Your task to perform on an android device: toggle priority inbox in the gmail app Image 0: 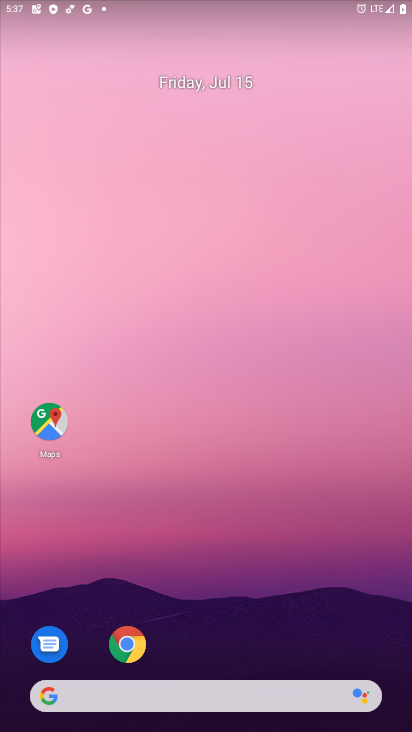
Step 0: drag from (192, 665) to (246, 158)
Your task to perform on an android device: toggle priority inbox in the gmail app Image 1: 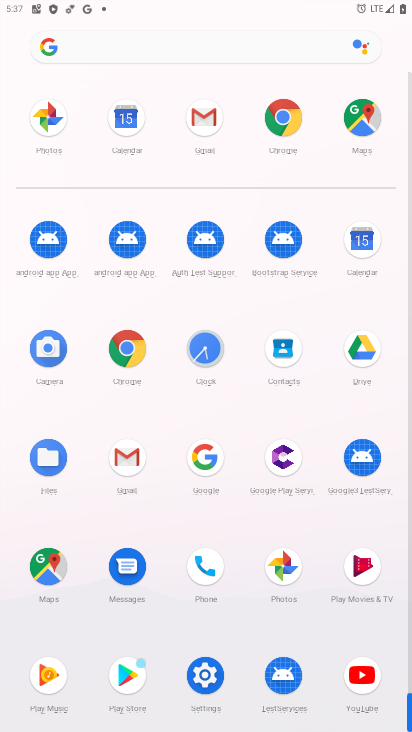
Step 1: click (115, 452)
Your task to perform on an android device: toggle priority inbox in the gmail app Image 2: 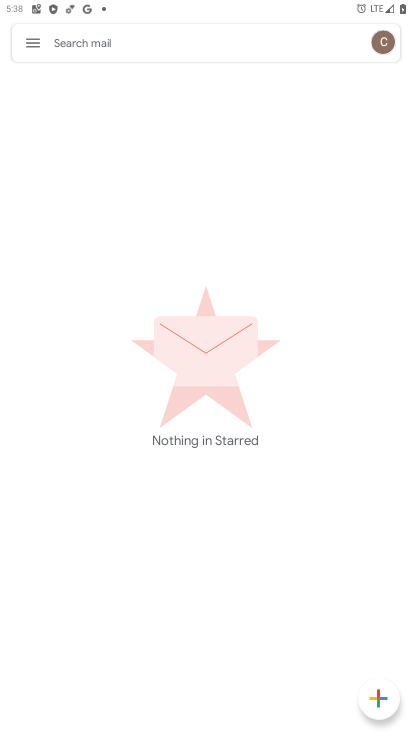
Step 2: click (26, 44)
Your task to perform on an android device: toggle priority inbox in the gmail app Image 3: 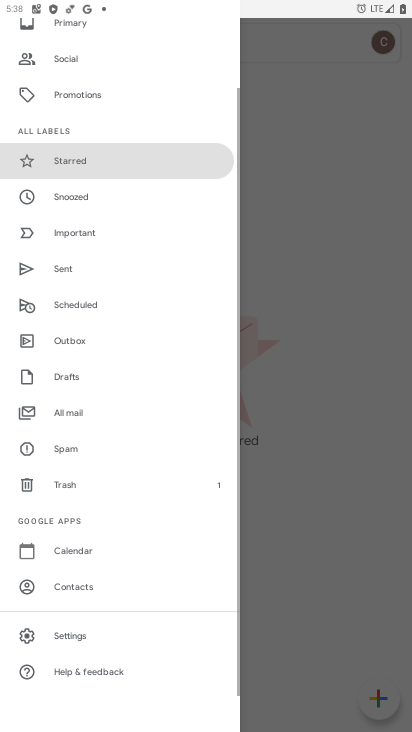
Step 3: click (76, 637)
Your task to perform on an android device: toggle priority inbox in the gmail app Image 4: 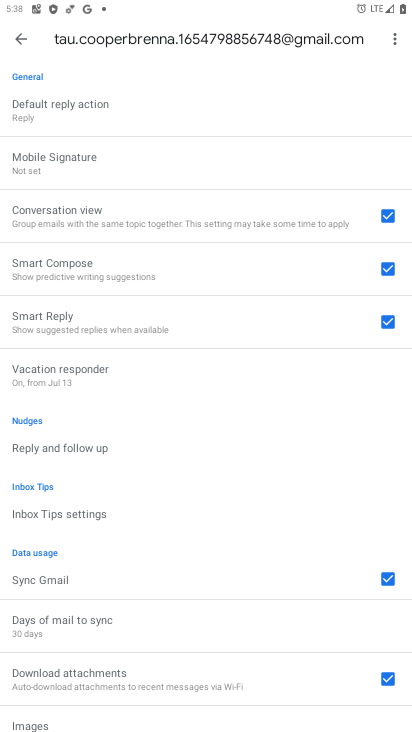
Step 4: drag from (69, 158) to (4, 611)
Your task to perform on an android device: toggle priority inbox in the gmail app Image 5: 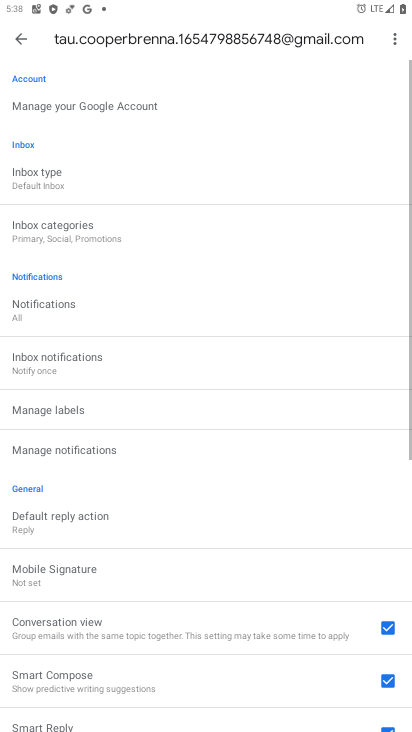
Step 5: click (21, 180)
Your task to perform on an android device: toggle priority inbox in the gmail app Image 6: 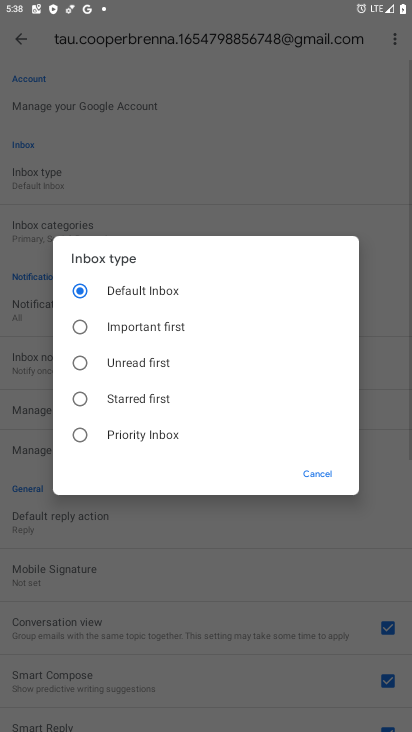
Step 6: click (127, 430)
Your task to perform on an android device: toggle priority inbox in the gmail app Image 7: 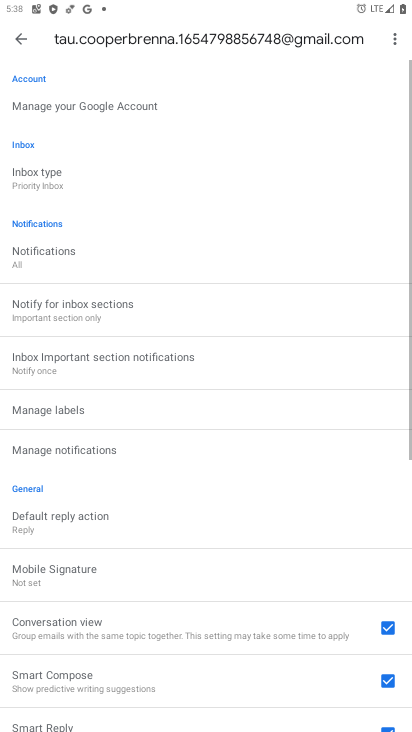
Step 7: task complete